Your task to perform on an android device: check out phone information Image 0: 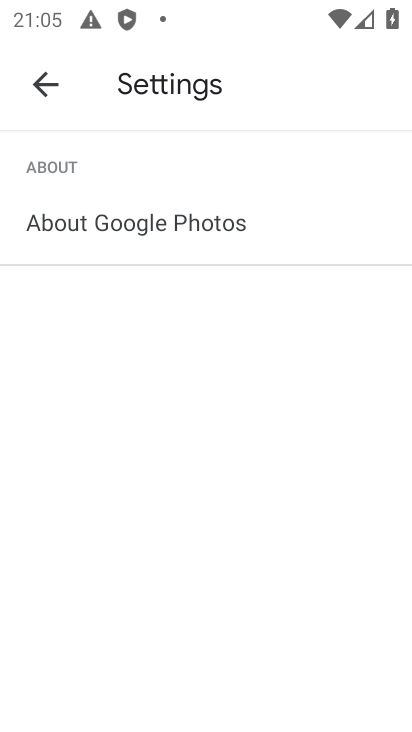
Step 0: press home button
Your task to perform on an android device: check out phone information Image 1: 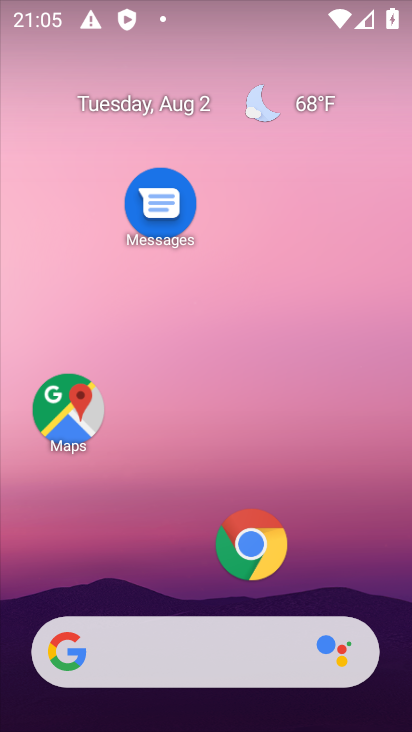
Step 1: drag from (172, 572) to (211, 128)
Your task to perform on an android device: check out phone information Image 2: 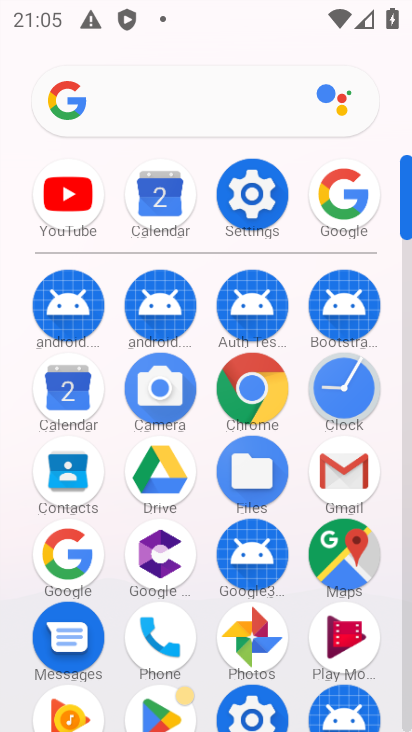
Step 2: click (237, 185)
Your task to perform on an android device: check out phone information Image 3: 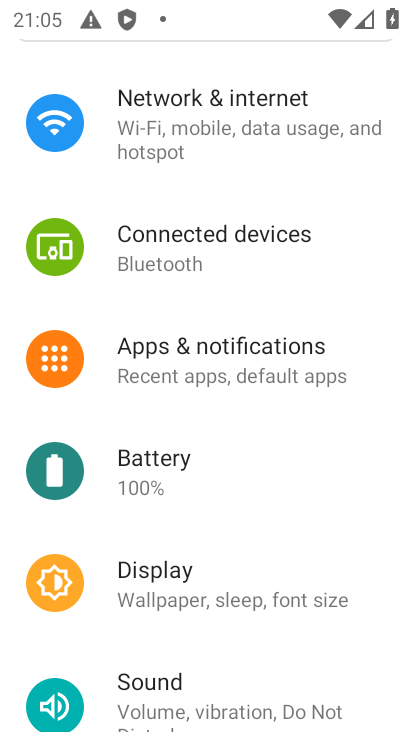
Step 3: drag from (183, 700) to (265, 220)
Your task to perform on an android device: check out phone information Image 4: 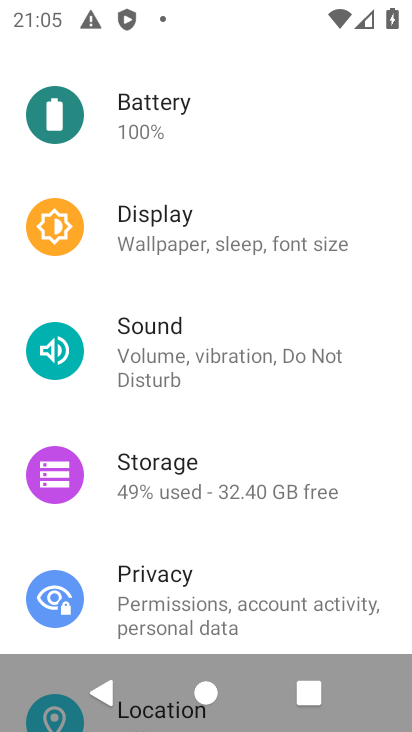
Step 4: drag from (227, 632) to (234, 203)
Your task to perform on an android device: check out phone information Image 5: 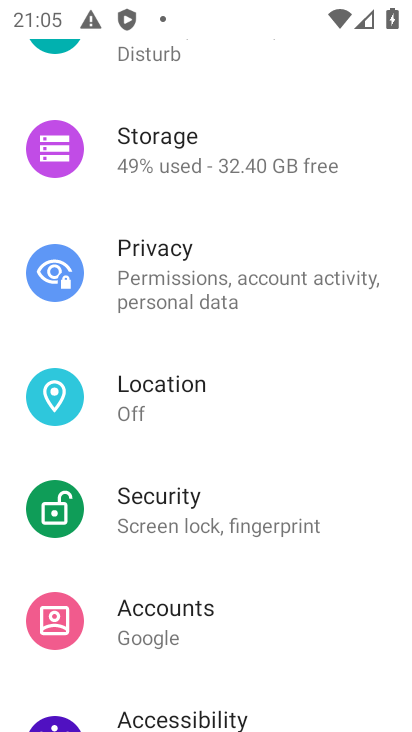
Step 5: drag from (205, 515) to (250, 97)
Your task to perform on an android device: check out phone information Image 6: 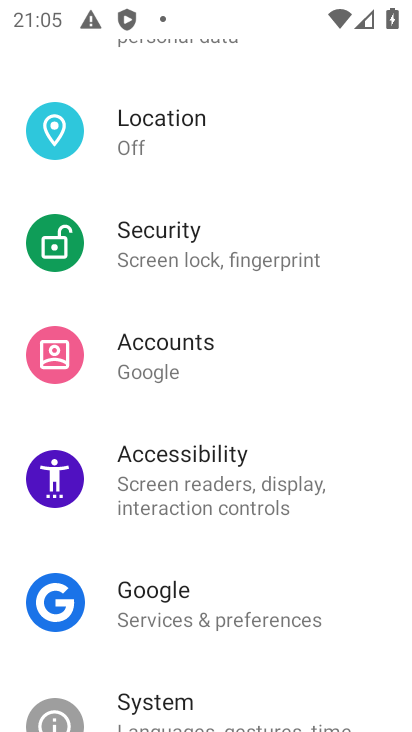
Step 6: drag from (238, 615) to (260, 96)
Your task to perform on an android device: check out phone information Image 7: 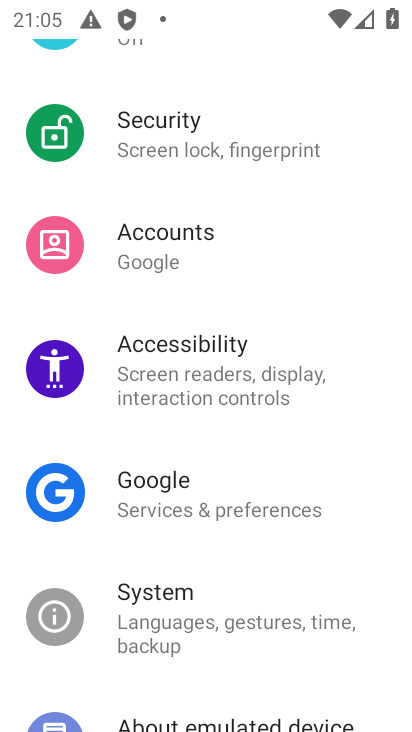
Step 7: drag from (218, 630) to (252, 200)
Your task to perform on an android device: check out phone information Image 8: 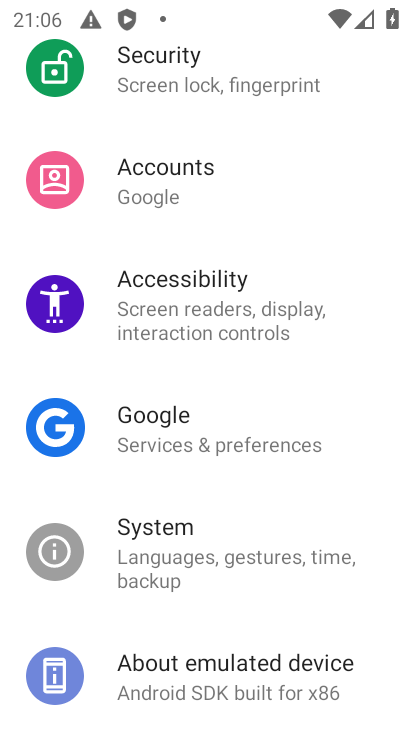
Step 8: click (194, 660)
Your task to perform on an android device: check out phone information Image 9: 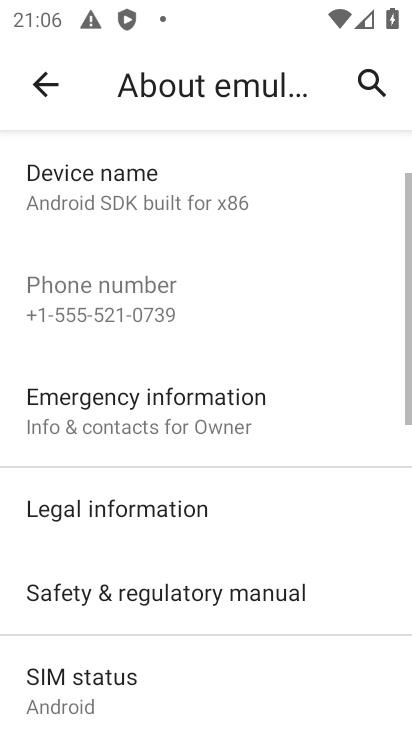
Step 9: task complete